Your task to perform on an android device: Add "razer thresher" to the cart on target, then select checkout. Image 0: 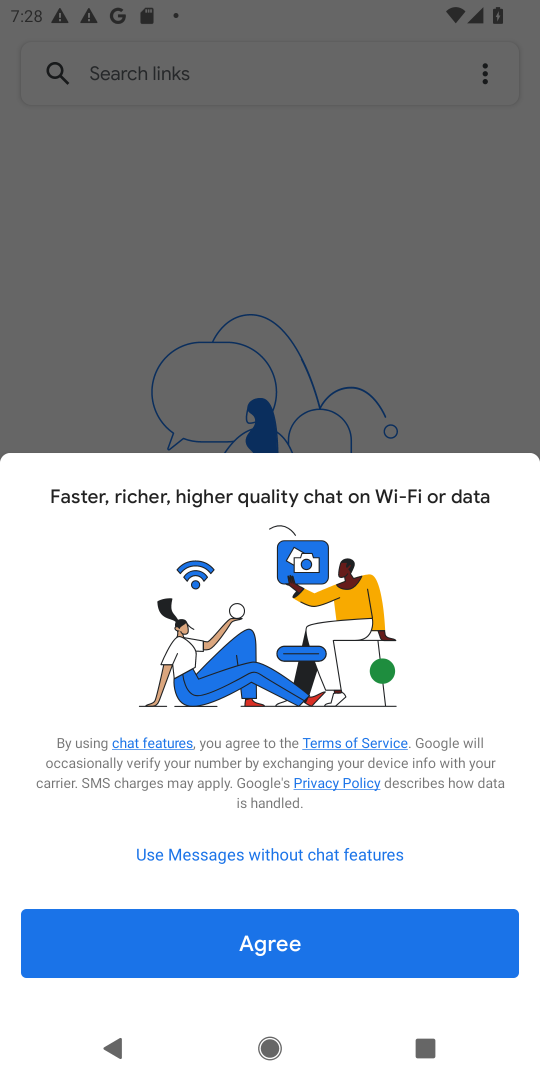
Step 0: press home button
Your task to perform on an android device: Add "razer thresher" to the cart on target, then select checkout. Image 1: 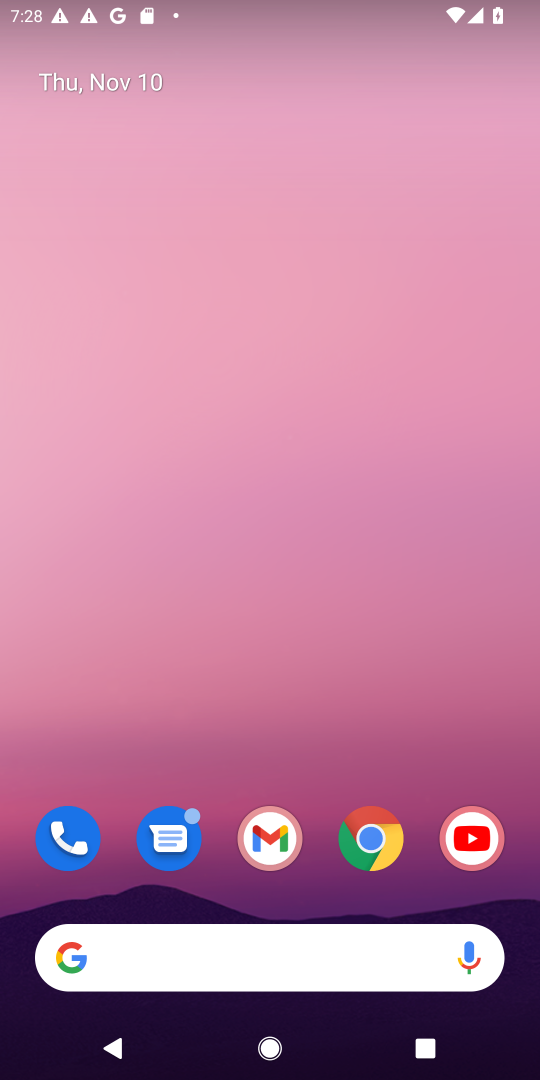
Step 1: drag from (319, 888) to (360, 18)
Your task to perform on an android device: Add "razer thresher" to the cart on target, then select checkout. Image 2: 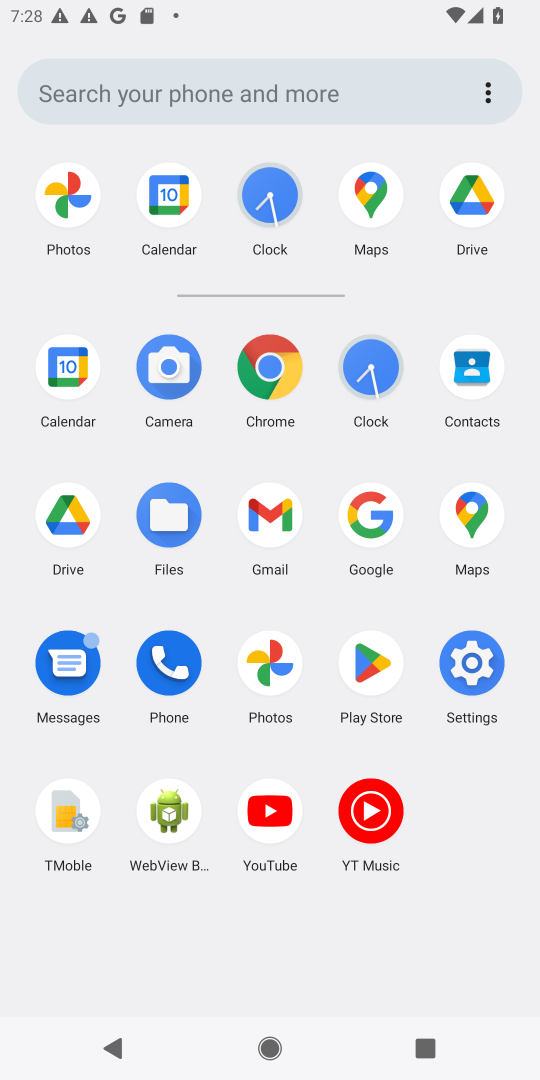
Step 2: click (272, 361)
Your task to perform on an android device: Add "razer thresher" to the cart on target, then select checkout. Image 3: 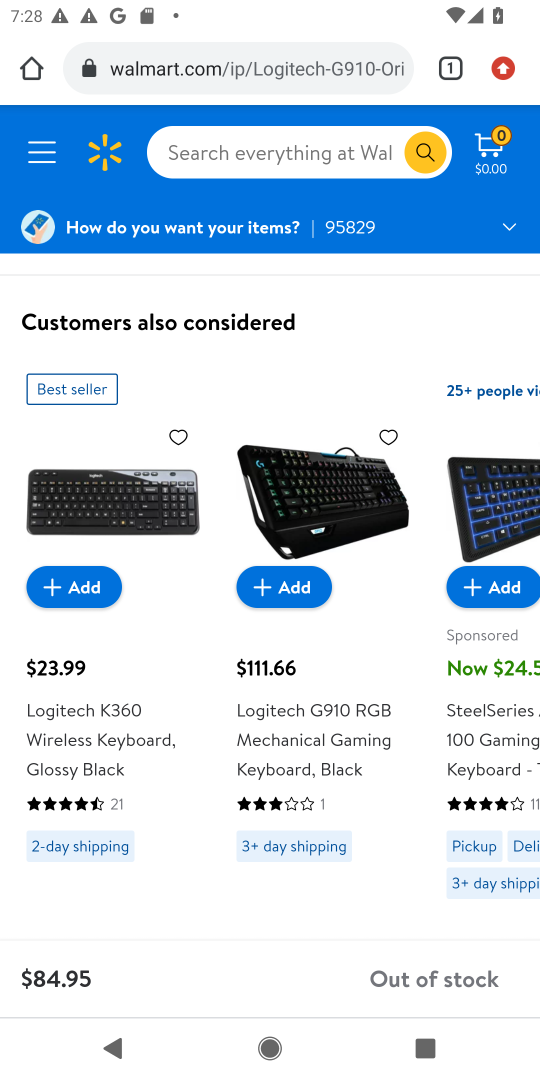
Step 3: click (339, 76)
Your task to perform on an android device: Add "razer thresher" to the cart on target, then select checkout. Image 4: 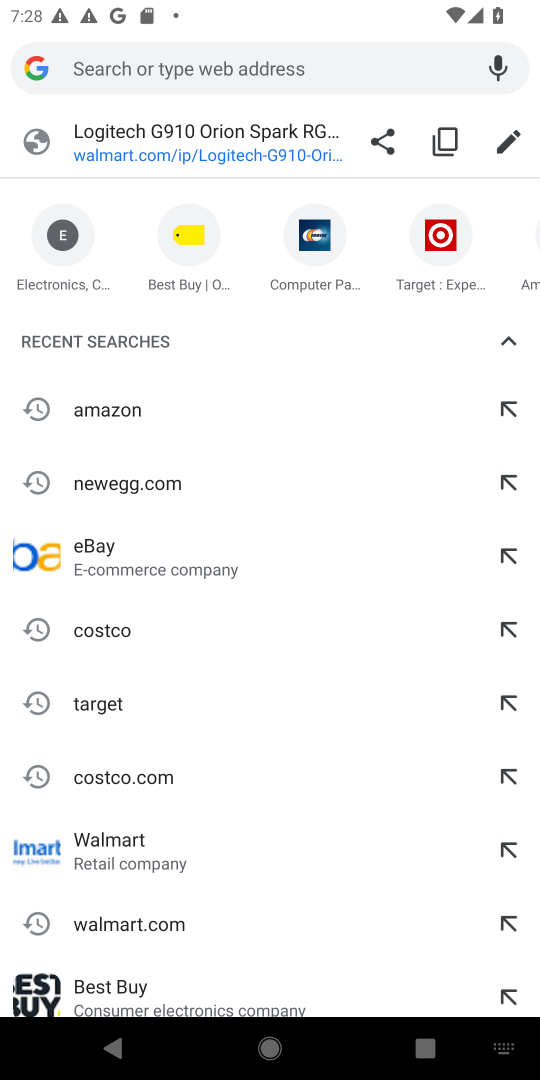
Step 4: type "targer.com"
Your task to perform on an android device: Add "razer thresher" to the cart on target, then select checkout. Image 5: 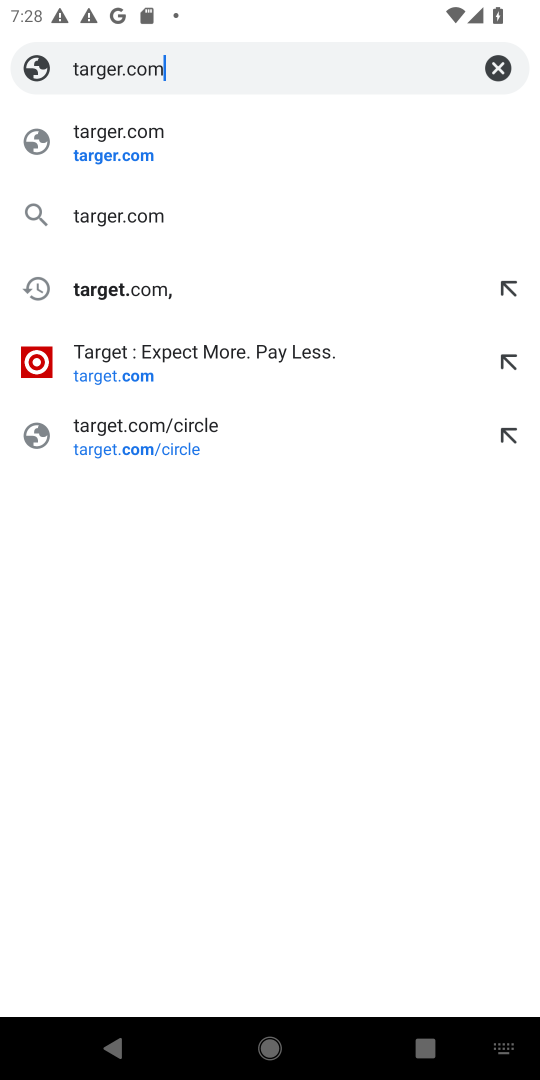
Step 5: press enter
Your task to perform on an android device: Add "razer thresher" to the cart on target, then select checkout. Image 6: 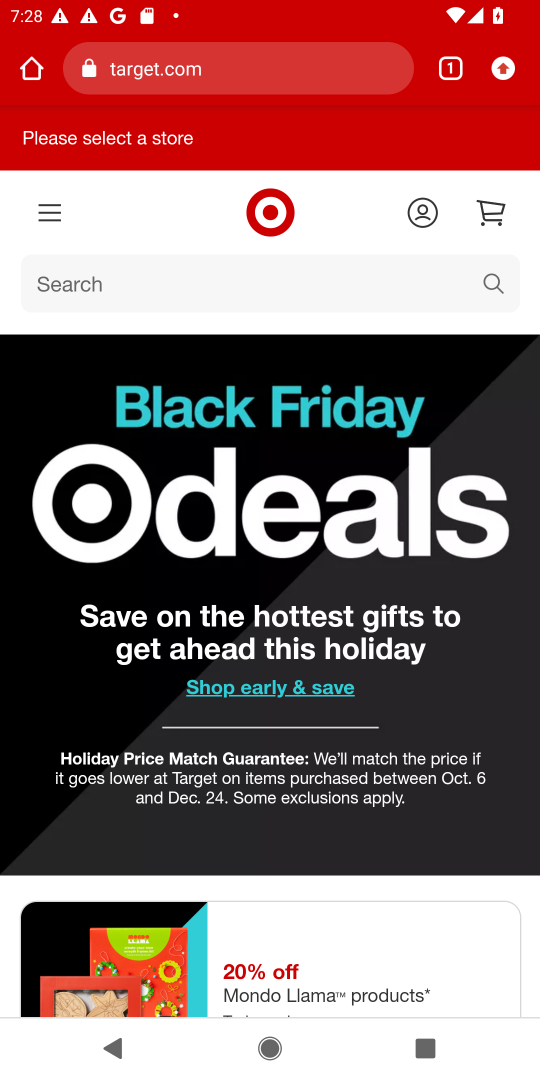
Step 6: click (300, 281)
Your task to perform on an android device: Add "razer thresher" to the cart on target, then select checkout. Image 7: 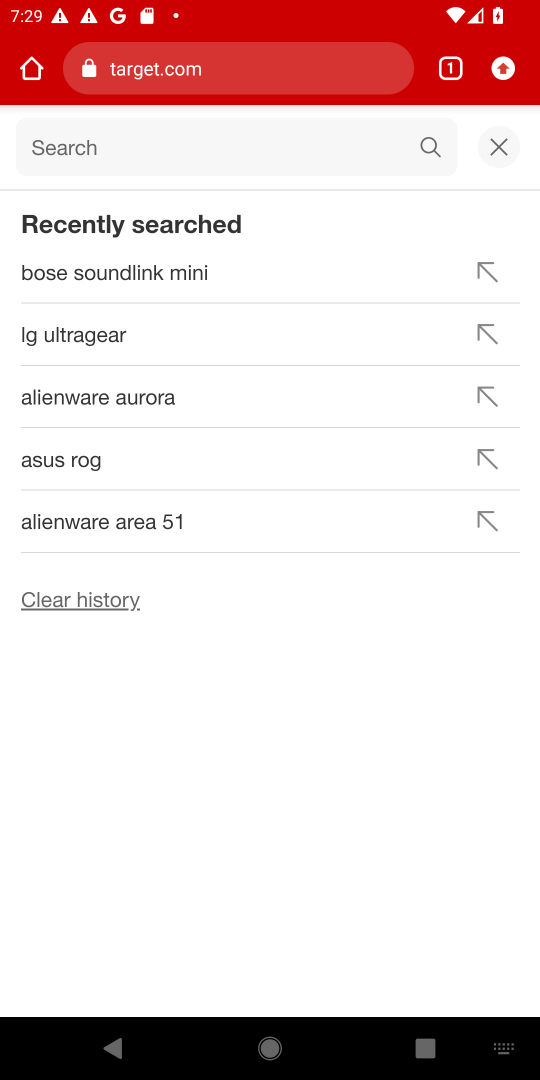
Step 7: type "razer thresher"
Your task to perform on an android device: Add "razer thresher" to the cart on target, then select checkout. Image 8: 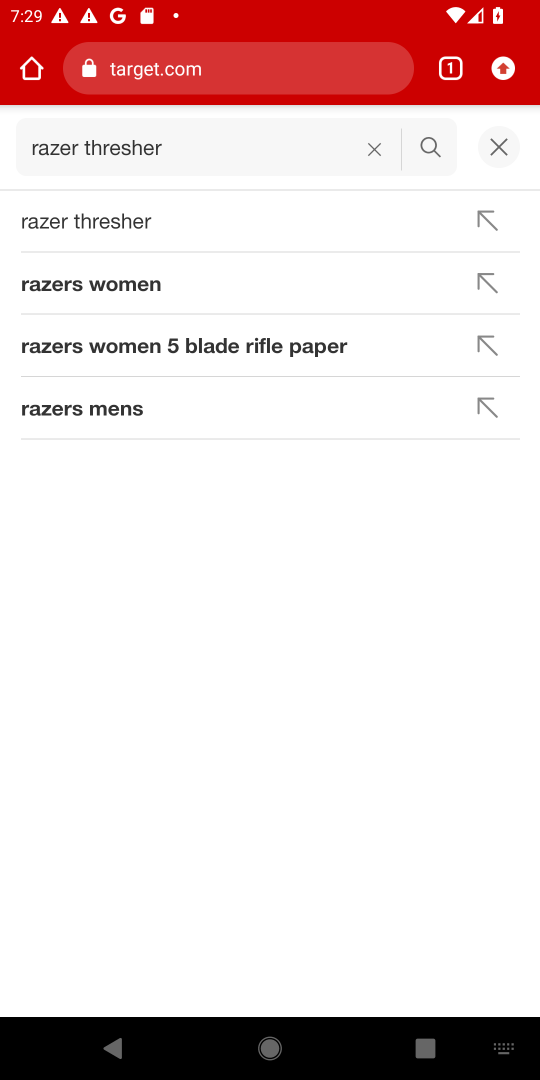
Step 8: press enter
Your task to perform on an android device: Add "razer thresher" to the cart on target, then select checkout. Image 9: 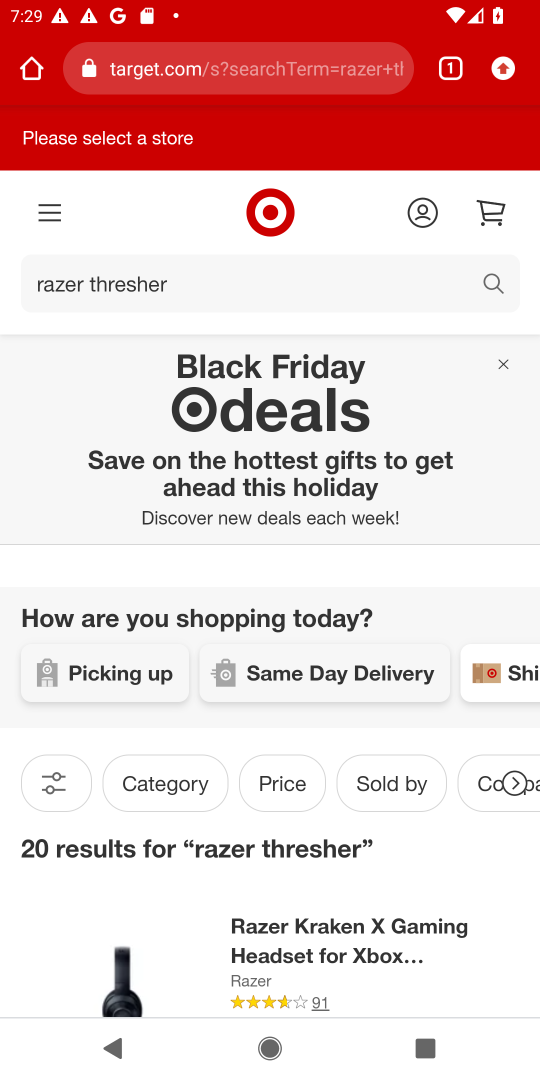
Step 9: task complete